Your task to perform on an android device: turn notification dots on Image 0: 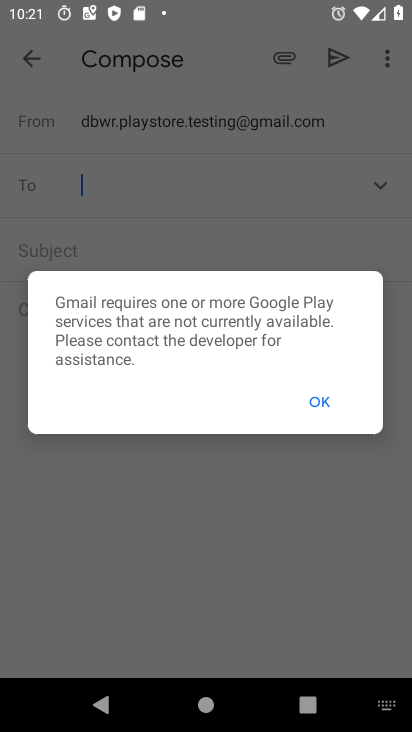
Step 0: click (321, 393)
Your task to perform on an android device: turn notification dots on Image 1: 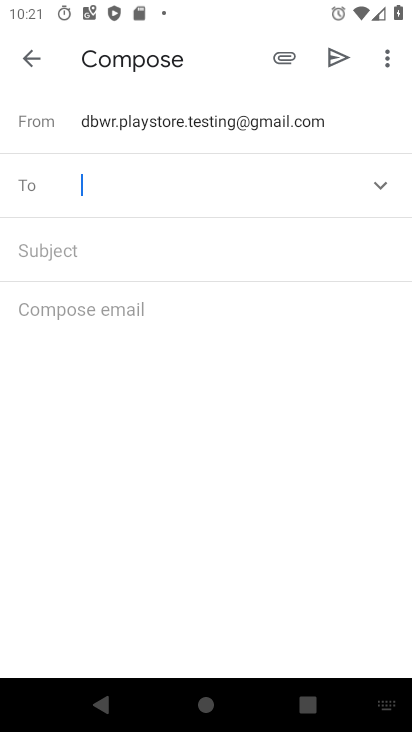
Step 1: click (35, 58)
Your task to perform on an android device: turn notification dots on Image 2: 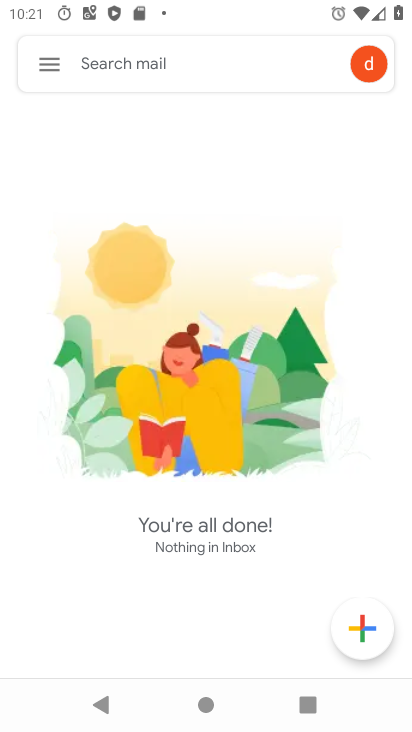
Step 2: press home button
Your task to perform on an android device: turn notification dots on Image 3: 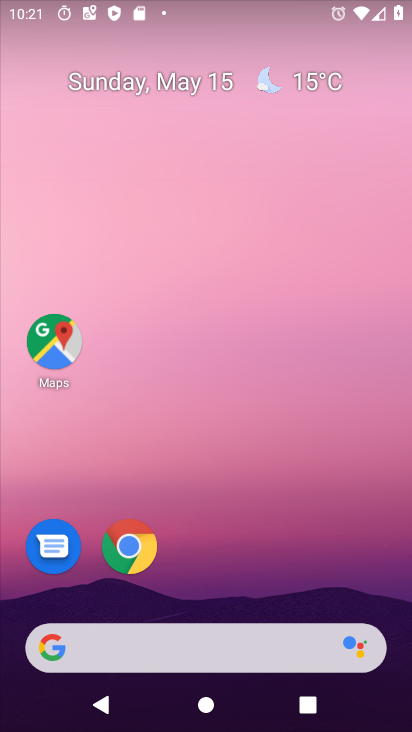
Step 3: drag from (387, 163) to (387, 105)
Your task to perform on an android device: turn notification dots on Image 4: 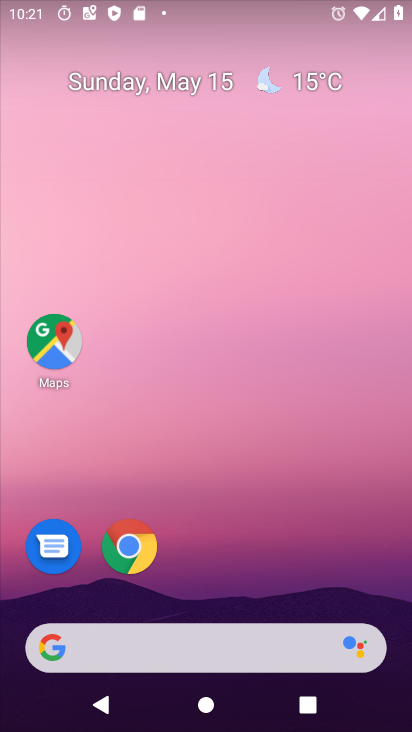
Step 4: drag from (351, 614) to (247, 111)
Your task to perform on an android device: turn notification dots on Image 5: 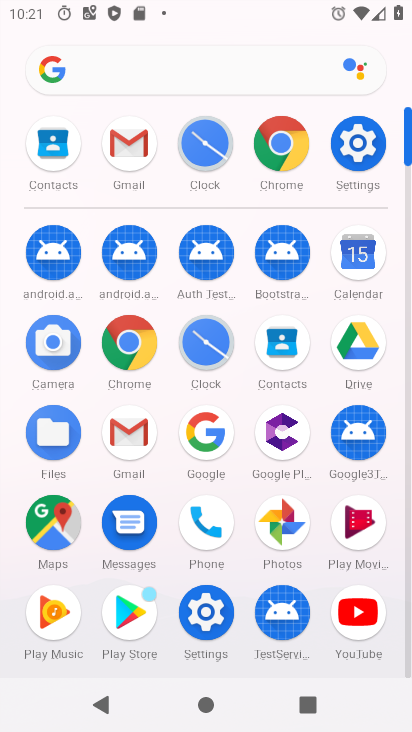
Step 5: click (365, 155)
Your task to perform on an android device: turn notification dots on Image 6: 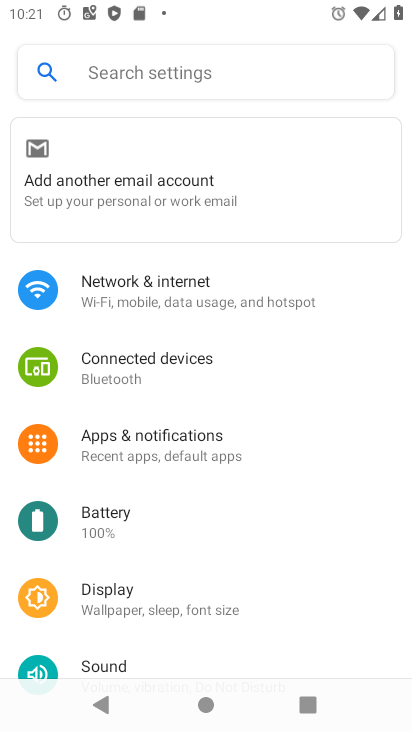
Step 6: click (132, 443)
Your task to perform on an android device: turn notification dots on Image 7: 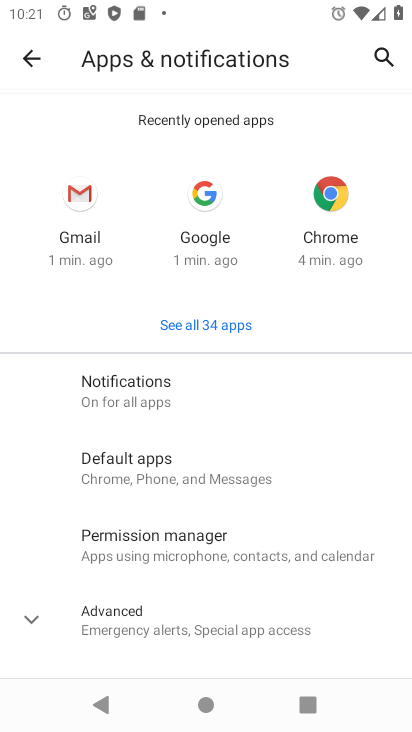
Step 7: click (120, 393)
Your task to perform on an android device: turn notification dots on Image 8: 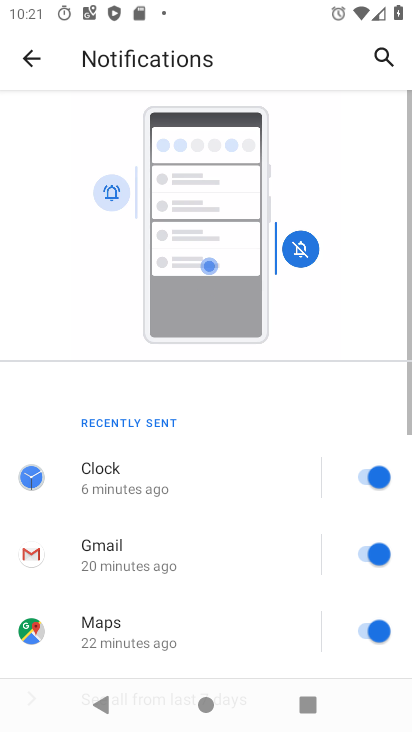
Step 8: drag from (204, 539) to (79, 126)
Your task to perform on an android device: turn notification dots on Image 9: 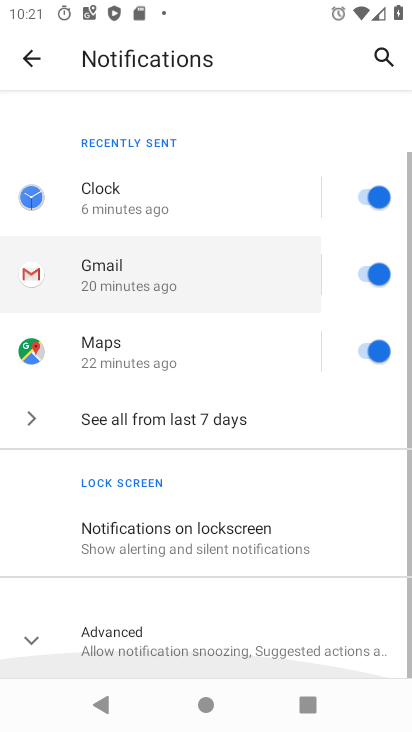
Step 9: drag from (215, 395) to (159, 118)
Your task to perform on an android device: turn notification dots on Image 10: 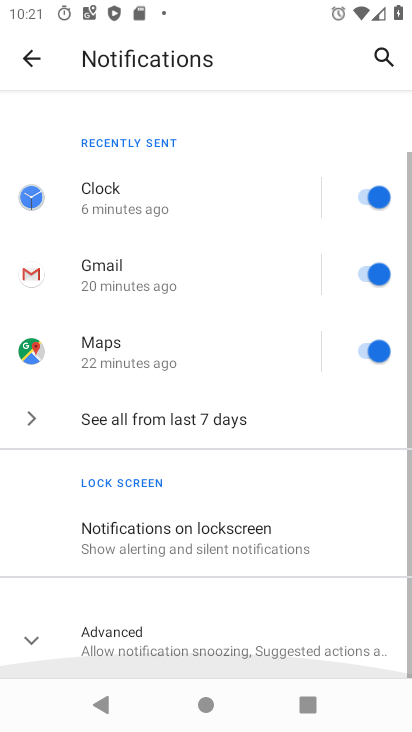
Step 10: drag from (236, 392) to (237, 129)
Your task to perform on an android device: turn notification dots on Image 11: 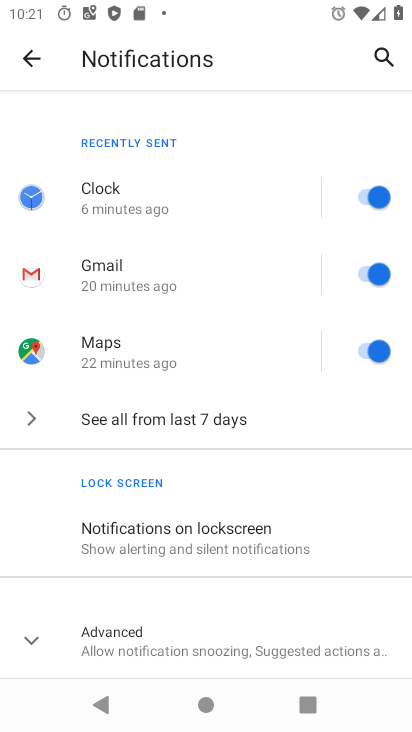
Step 11: click (130, 646)
Your task to perform on an android device: turn notification dots on Image 12: 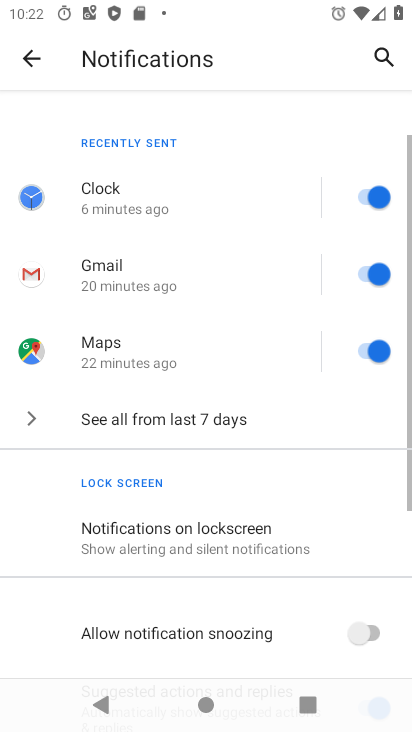
Step 12: task complete